Your task to perform on an android device: Clear all items from cart on walmart.com. Search for "acer predator" on walmart.com, select the first entry, and add it to the cart. Image 0: 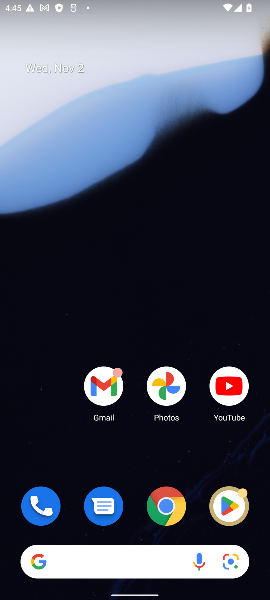
Step 0: click (172, 507)
Your task to perform on an android device: Clear all items from cart on walmart.com. Search for "acer predator" on walmart.com, select the first entry, and add it to the cart. Image 1: 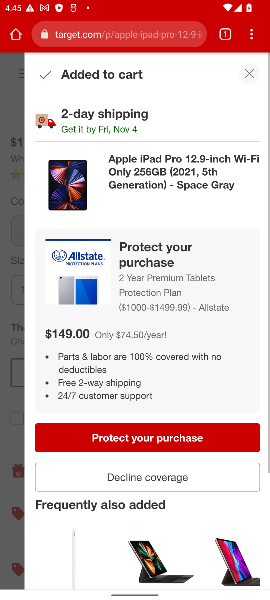
Step 1: click (77, 41)
Your task to perform on an android device: Clear all items from cart on walmart.com. Search for "acer predator" on walmart.com, select the first entry, and add it to the cart. Image 2: 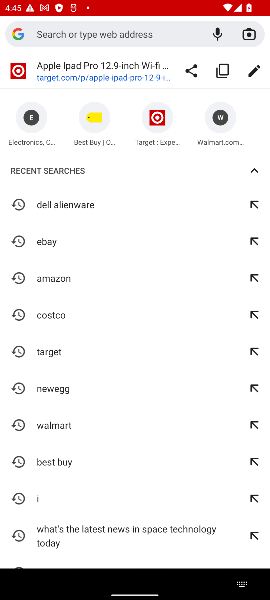
Step 2: type "walmart.com"
Your task to perform on an android device: Clear all items from cart on walmart.com. Search for "acer predator" on walmart.com, select the first entry, and add it to the cart. Image 3: 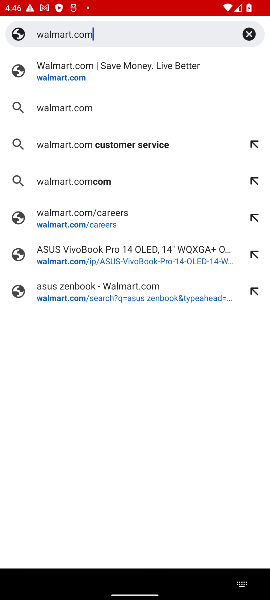
Step 3: press enter
Your task to perform on an android device: Clear all items from cart on walmart.com. Search for "acer predator" on walmart.com, select the first entry, and add it to the cart. Image 4: 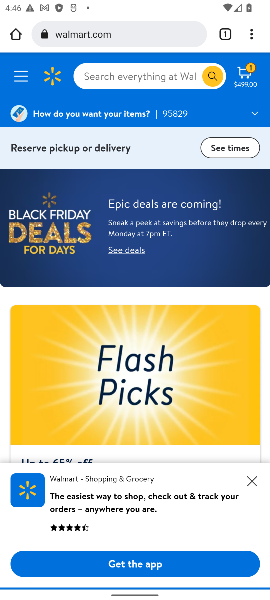
Step 4: click (132, 74)
Your task to perform on an android device: Clear all items from cart on walmart.com. Search for "acer predator" on walmart.com, select the first entry, and add it to the cart. Image 5: 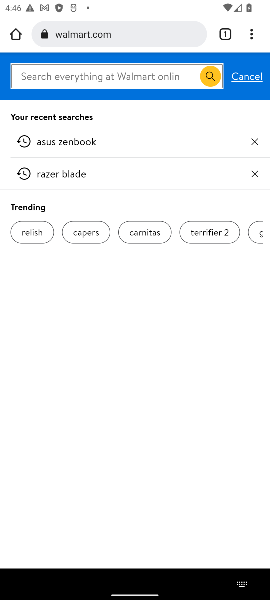
Step 5: type "acer predator"
Your task to perform on an android device: Clear all items from cart on walmart.com. Search for "acer predator" on walmart.com, select the first entry, and add it to the cart. Image 6: 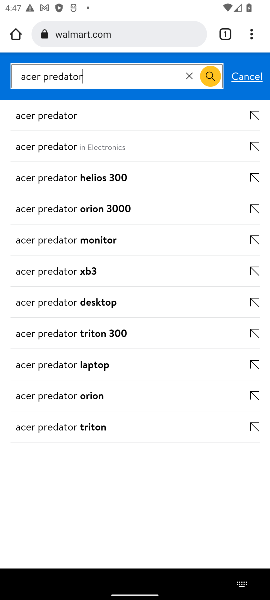
Step 6: press enter
Your task to perform on an android device: Clear all items from cart on walmart.com. Search for "acer predator" on walmart.com, select the first entry, and add it to the cart. Image 7: 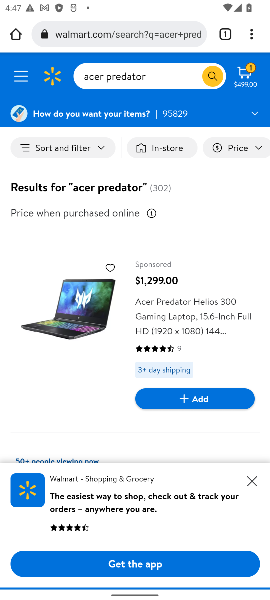
Step 7: click (71, 315)
Your task to perform on an android device: Clear all items from cart on walmart.com. Search for "acer predator" on walmart.com, select the first entry, and add it to the cart. Image 8: 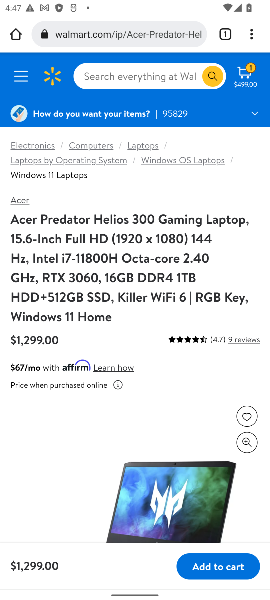
Step 8: drag from (125, 490) to (93, 107)
Your task to perform on an android device: Clear all items from cart on walmart.com. Search for "acer predator" on walmart.com, select the first entry, and add it to the cart. Image 9: 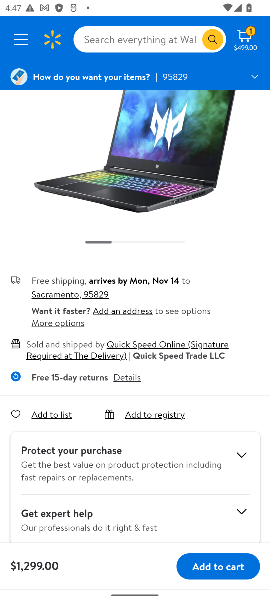
Step 9: click (193, 568)
Your task to perform on an android device: Clear all items from cart on walmart.com. Search for "acer predator" on walmart.com, select the first entry, and add it to the cart. Image 10: 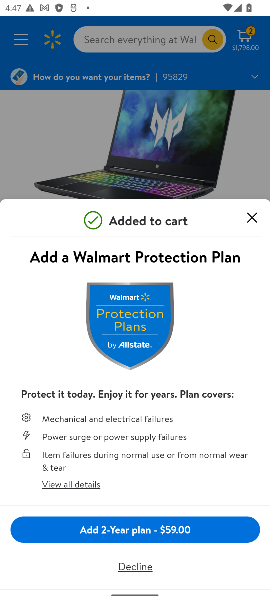
Step 10: task complete